Your task to perform on an android device: empty trash in the gmail app Image 0: 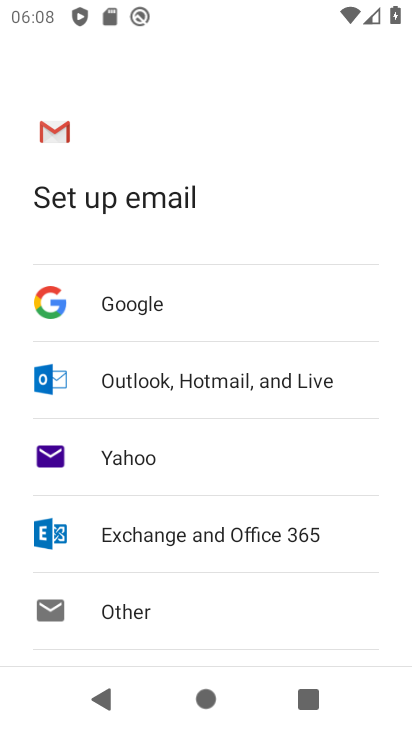
Step 0: press home button
Your task to perform on an android device: empty trash in the gmail app Image 1: 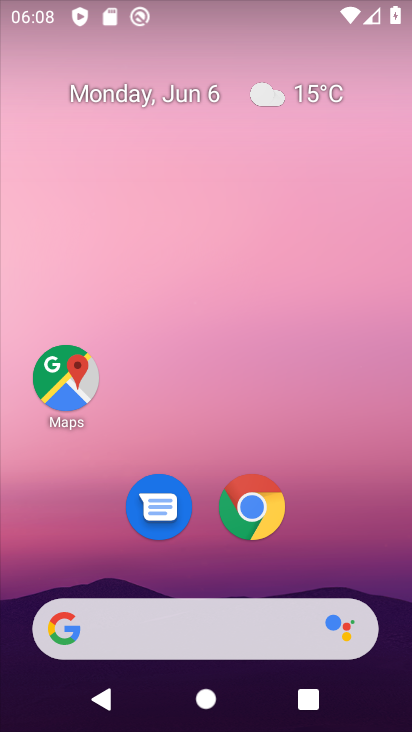
Step 1: drag from (203, 569) to (237, 1)
Your task to perform on an android device: empty trash in the gmail app Image 2: 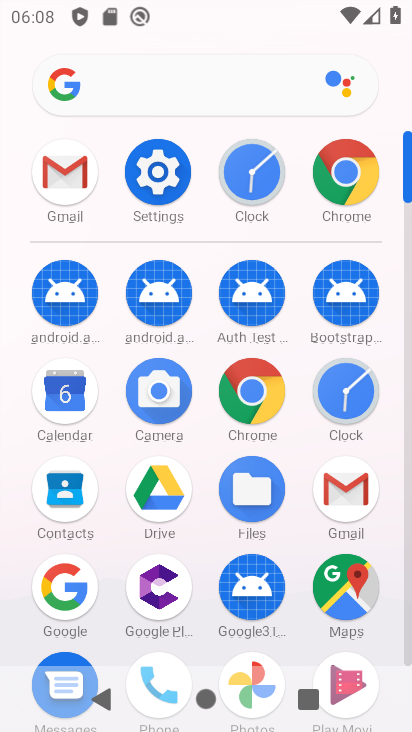
Step 2: click (357, 501)
Your task to perform on an android device: empty trash in the gmail app Image 3: 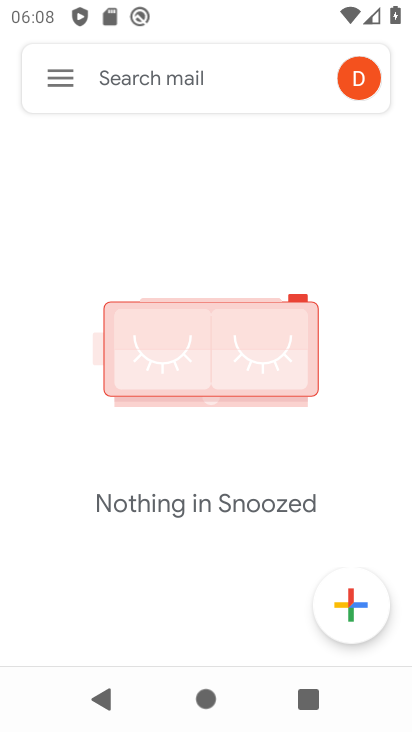
Step 3: click (49, 81)
Your task to perform on an android device: empty trash in the gmail app Image 4: 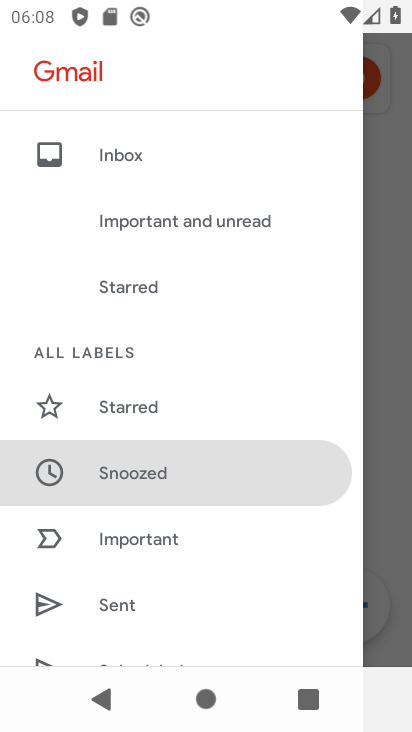
Step 4: drag from (122, 610) to (180, 216)
Your task to perform on an android device: empty trash in the gmail app Image 5: 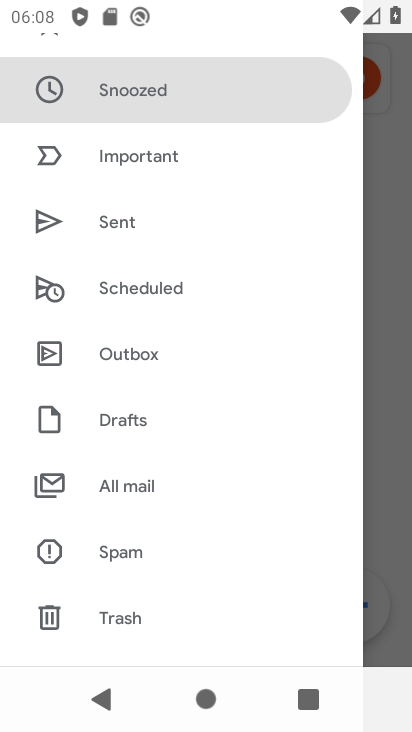
Step 5: click (120, 620)
Your task to perform on an android device: empty trash in the gmail app Image 6: 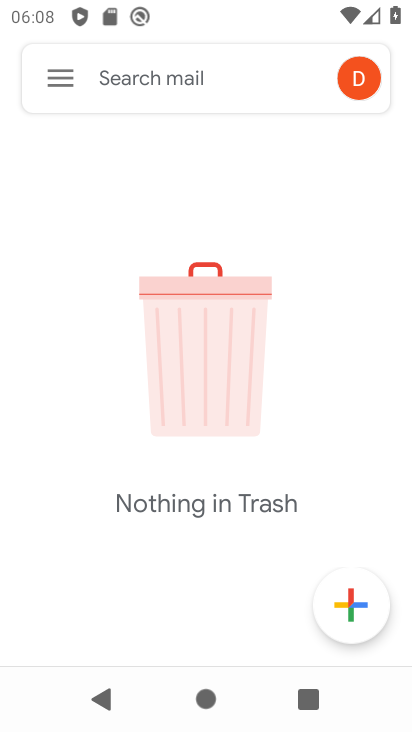
Step 6: task complete